Your task to perform on an android device: Check the weather Image 0: 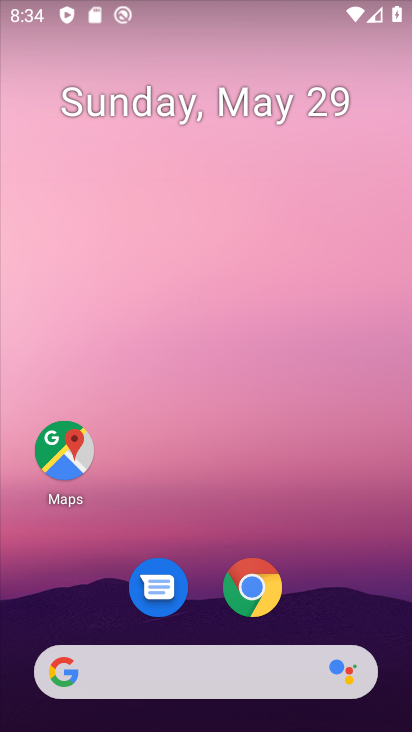
Step 0: click (194, 678)
Your task to perform on an android device: Check the weather Image 1: 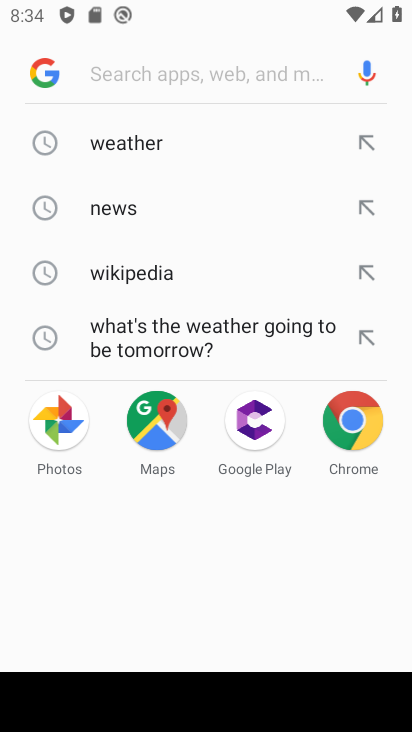
Step 1: click (115, 137)
Your task to perform on an android device: Check the weather Image 2: 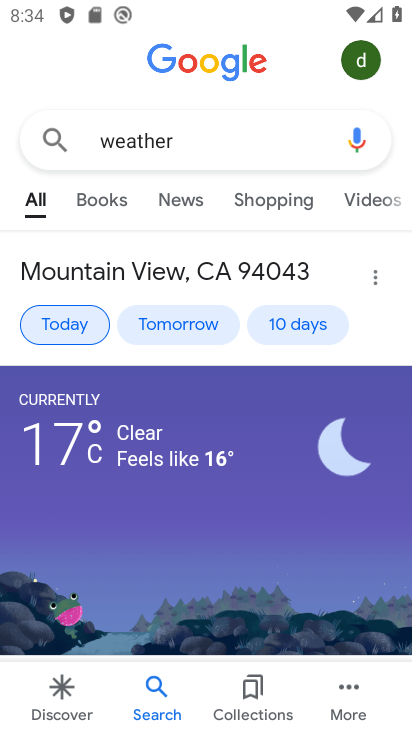
Step 2: task complete